Your task to perform on an android device: What is the recent news? Image 0: 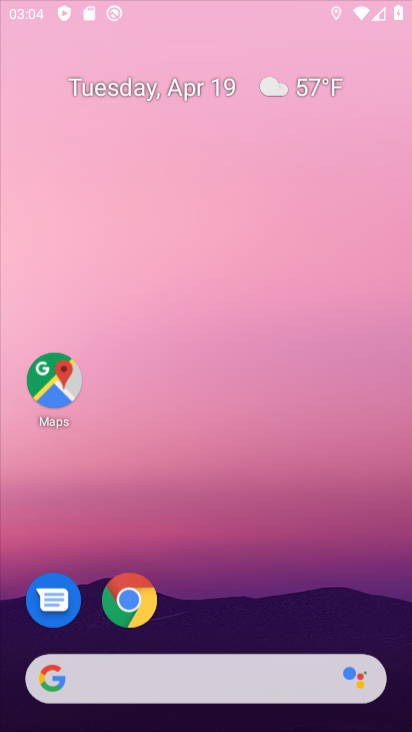
Step 0: click (120, 587)
Your task to perform on an android device: What is the recent news? Image 1: 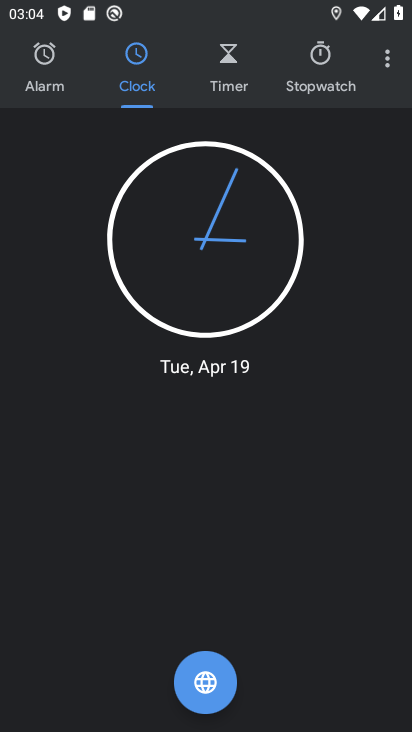
Step 1: press home button
Your task to perform on an android device: What is the recent news? Image 2: 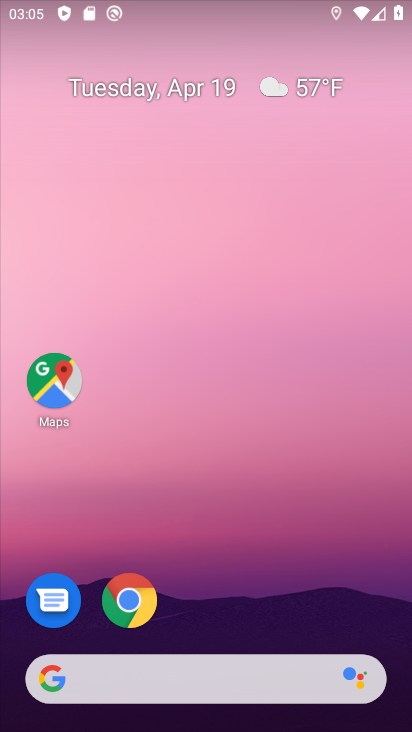
Step 2: click (131, 597)
Your task to perform on an android device: What is the recent news? Image 3: 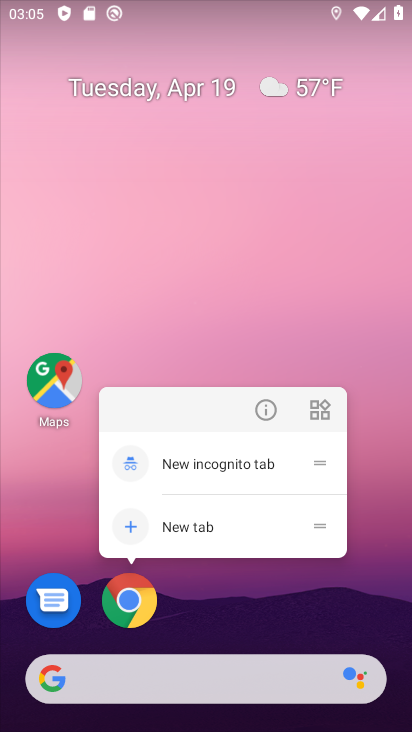
Step 3: click (131, 597)
Your task to perform on an android device: What is the recent news? Image 4: 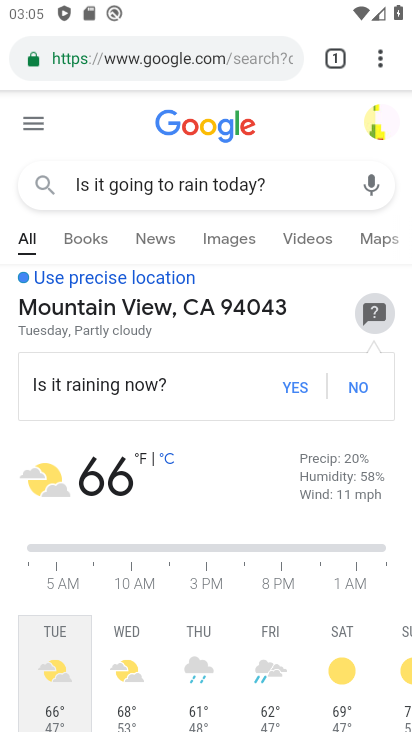
Step 4: drag from (267, 714) to (376, 715)
Your task to perform on an android device: What is the recent news? Image 5: 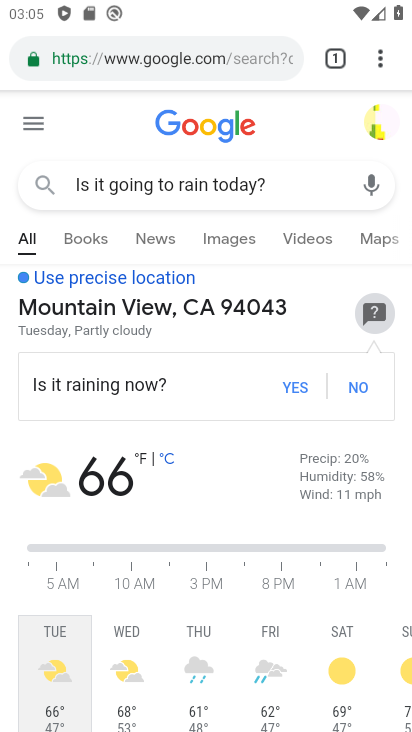
Step 5: click (242, 72)
Your task to perform on an android device: What is the recent news? Image 6: 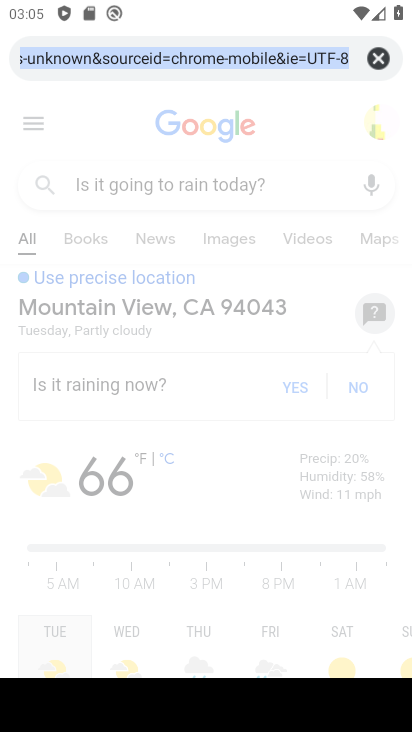
Step 6: type "What is the recent news?"
Your task to perform on an android device: What is the recent news? Image 7: 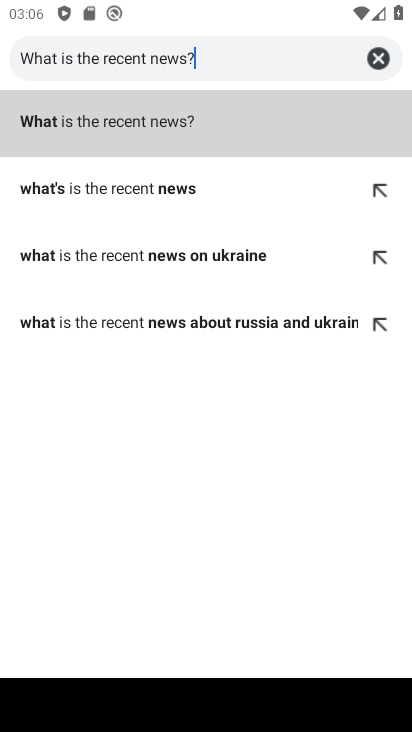
Step 7: click (287, 109)
Your task to perform on an android device: What is the recent news? Image 8: 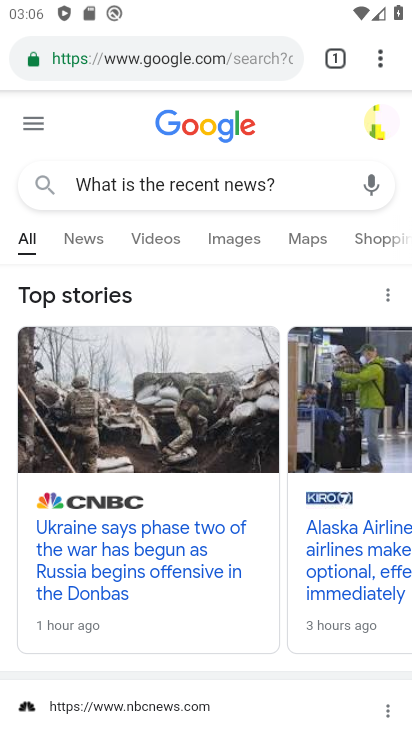
Step 8: task complete